Your task to perform on an android device: change notifications settings Image 0: 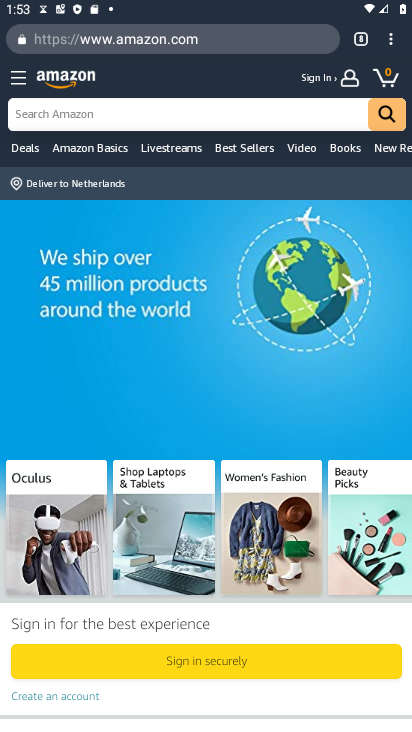
Step 0: press home button
Your task to perform on an android device: change notifications settings Image 1: 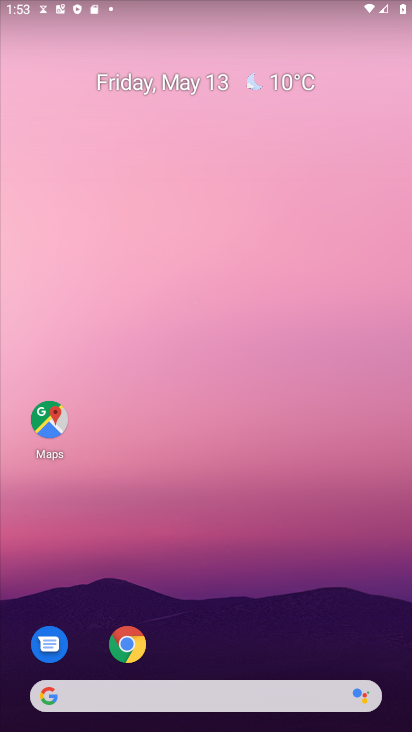
Step 1: drag from (206, 729) to (206, 244)
Your task to perform on an android device: change notifications settings Image 2: 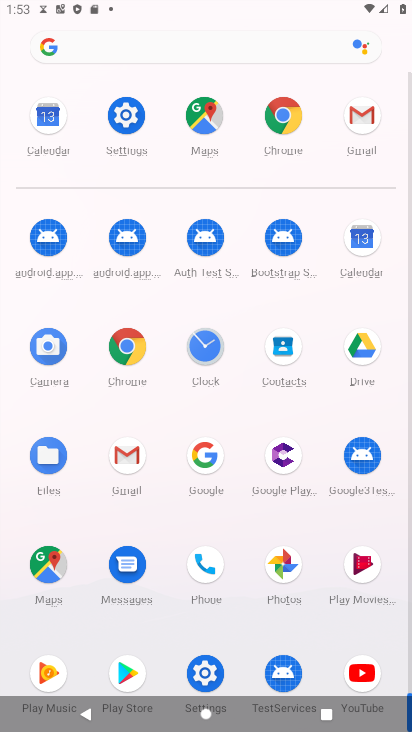
Step 2: click (123, 115)
Your task to perform on an android device: change notifications settings Image 3: 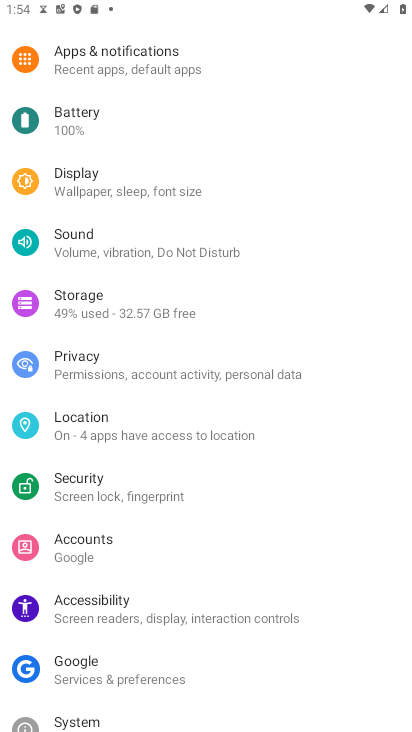
Step 3: click (123, 59)
Your task to perform on an android device: change notifications settings Image 4: 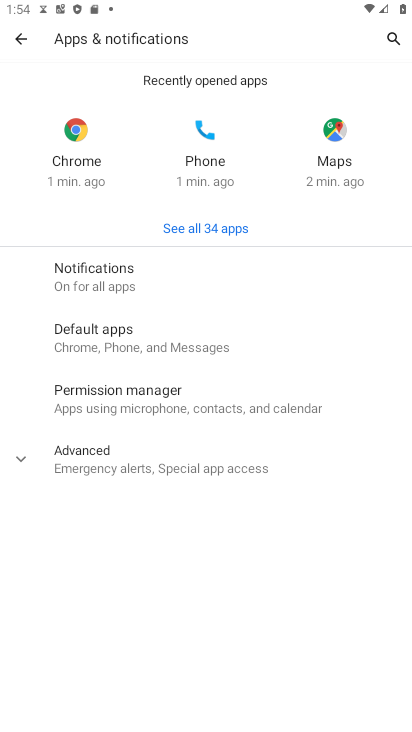
Step 4: click (90, 280)
Your task to perform on an android device: change notifications settings Image 5: 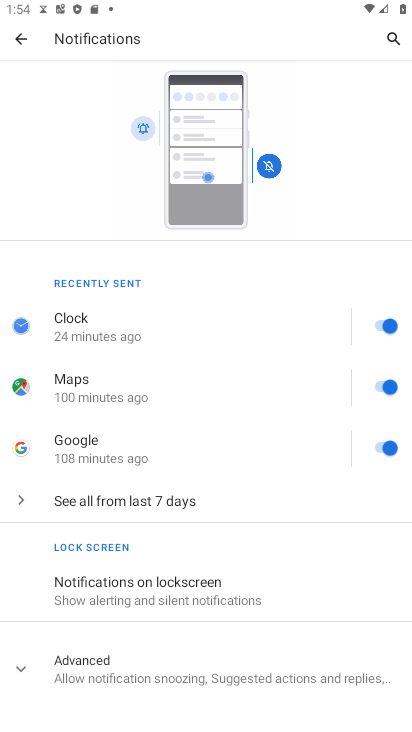
Step 5: drag from (191, 658) to (192, 500)
Your task to perform on an android device: change notifications settings Image 6: 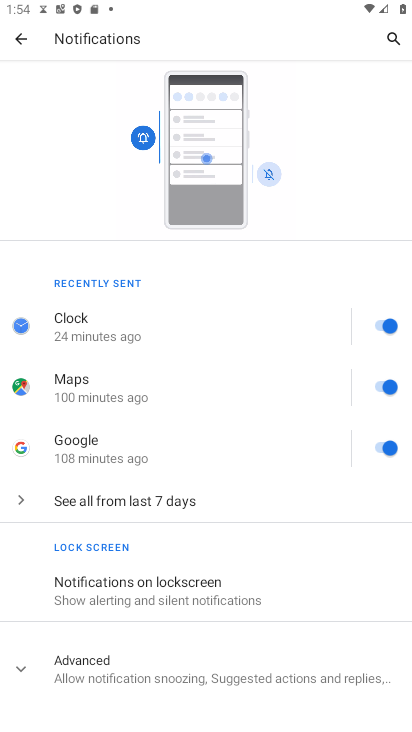
Step 6: click (202, 670)
Your task to perform on an android device: change notifications settings Image 7: 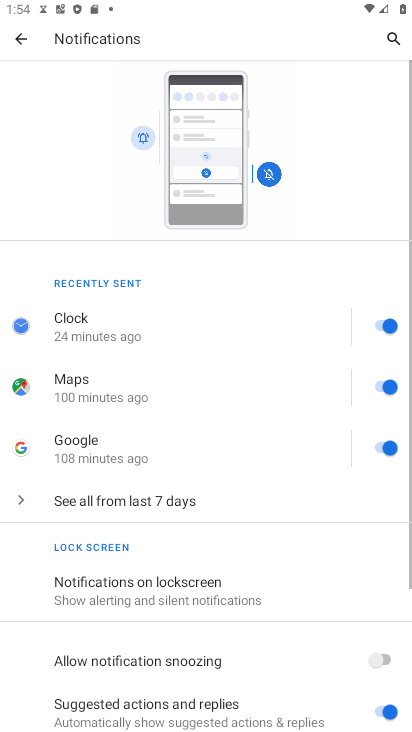
Step 7: drag from (274, 640) to (271, 332)
Your task to perform on an android device: change notifications settings Image 8: 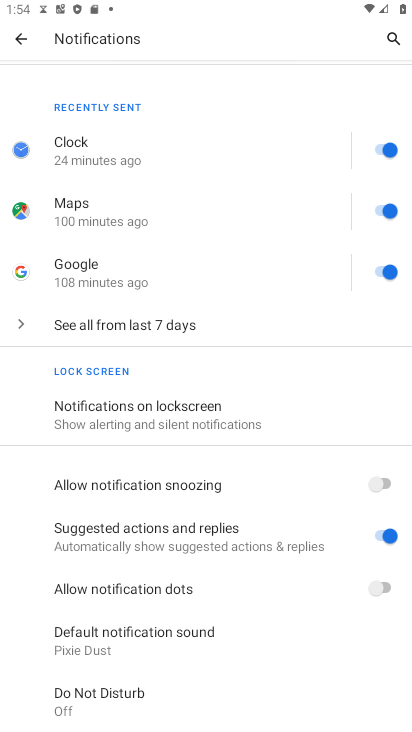
Step 8: click (384, 483)
Your task to perform on an android device: change notifications settings Image 9: 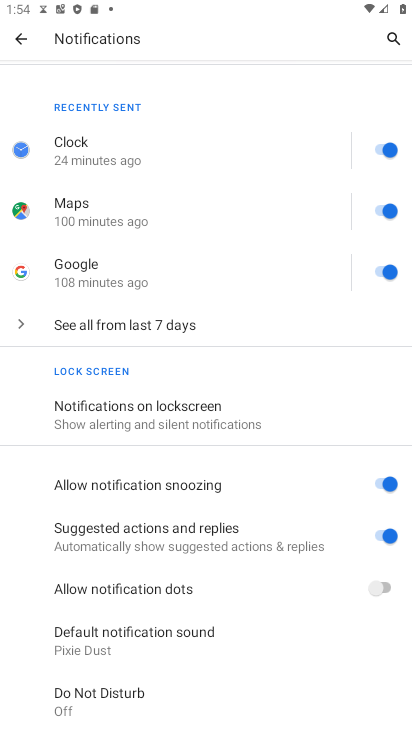
Step 9: task complete